Your task to perform on an android device: Add sony triple a to the cart on amazon.com Image 0: 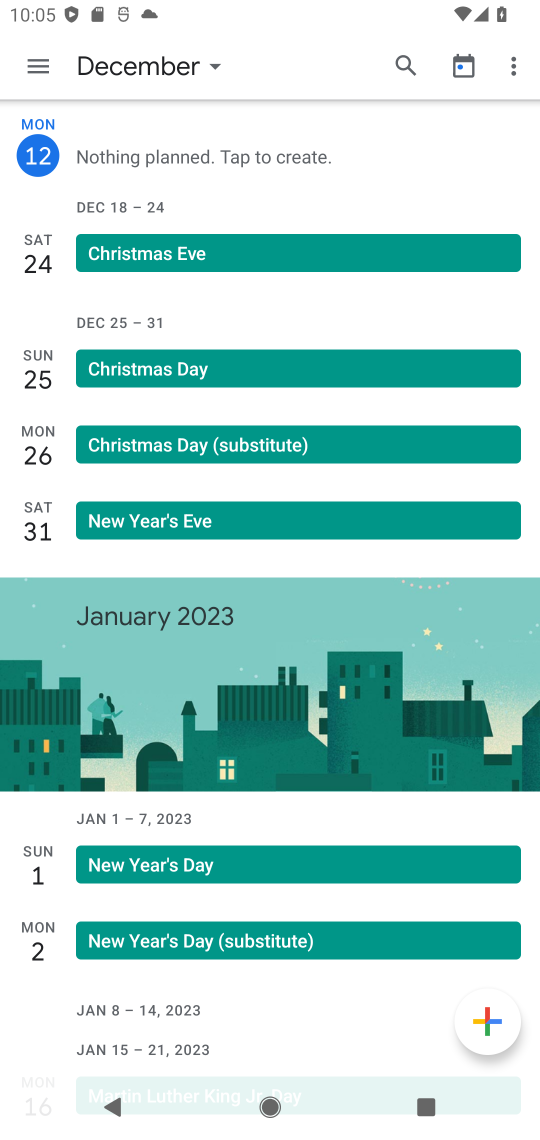
Step 0: press home button
Your task to perform on an android device: Add sony triple a to the cart on amazon.com Image 1: 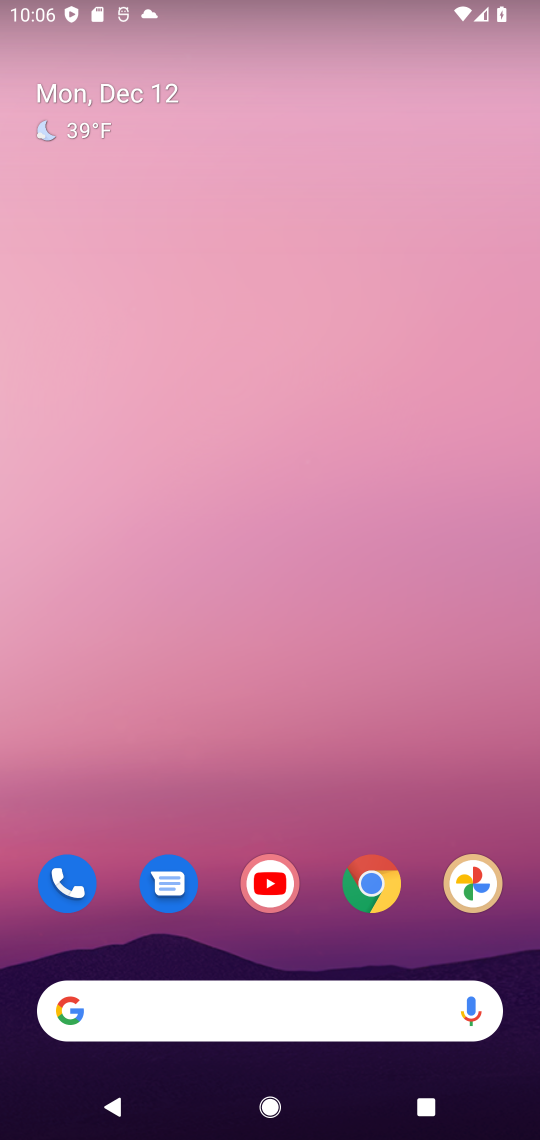
Step 1: click (163, 1032)
Your task to perform on an android device: Add sony triple a to the cart on amazon.com Image 2: 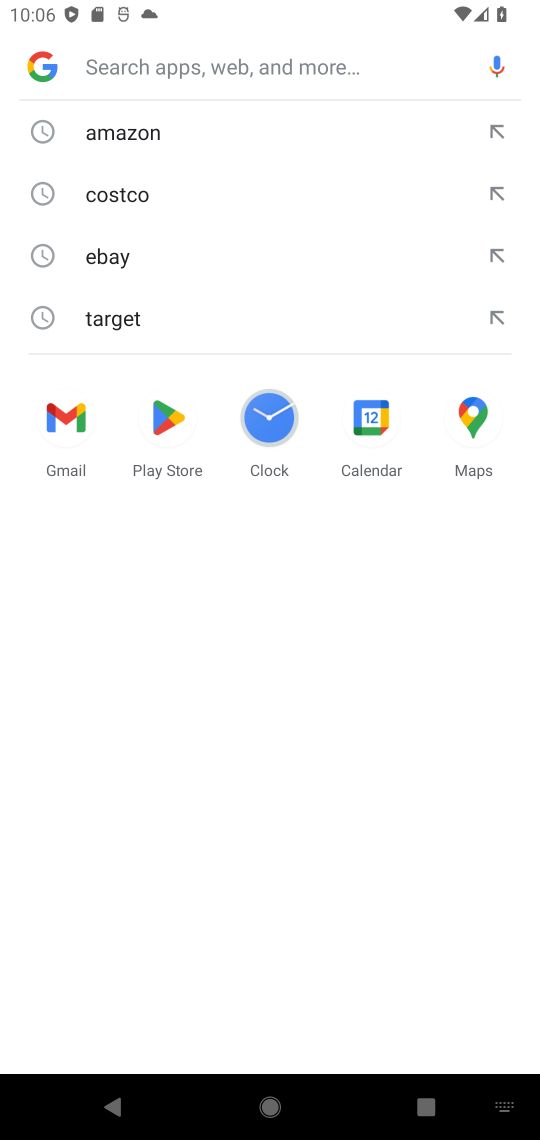
Step 2: click (97, 138)
Your task to perform on an android device: Add sony triple a to the cart on amazon.com Image 3: 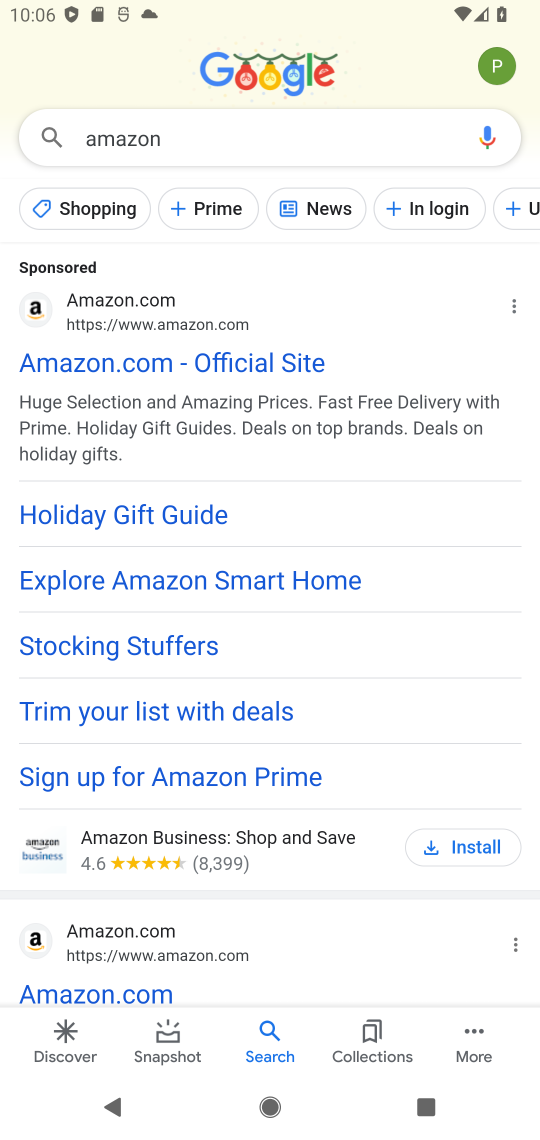
Step 3: click (102, 364)
Your task to perform on an android device: Add sony triple a to the cart on amazon.com Image 4: 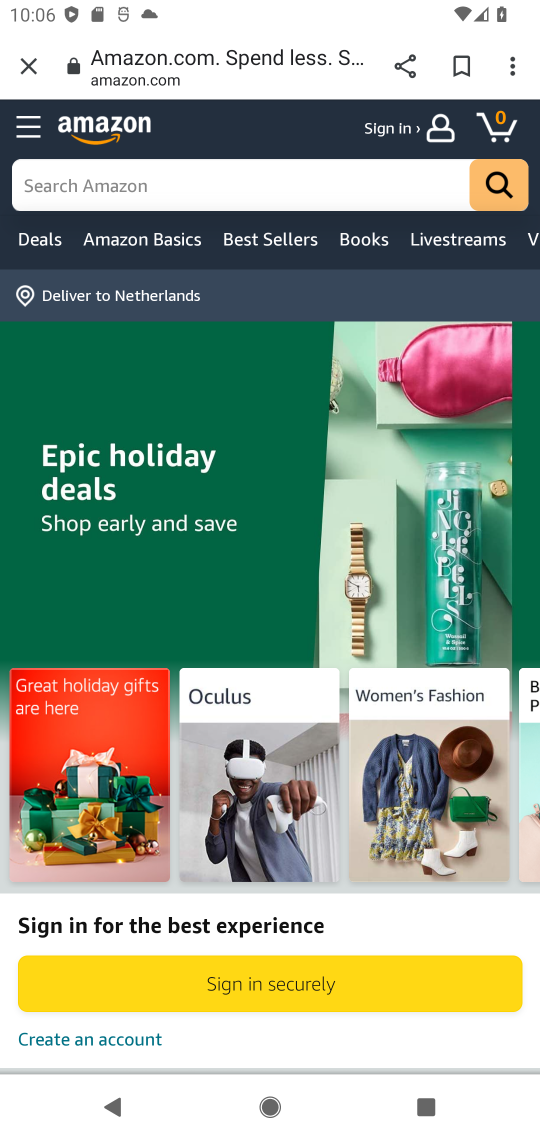
Step 4: click (190, 172)
Your task to perform on an android device: Add sony triple a to the cart on amazon.com Image 5: 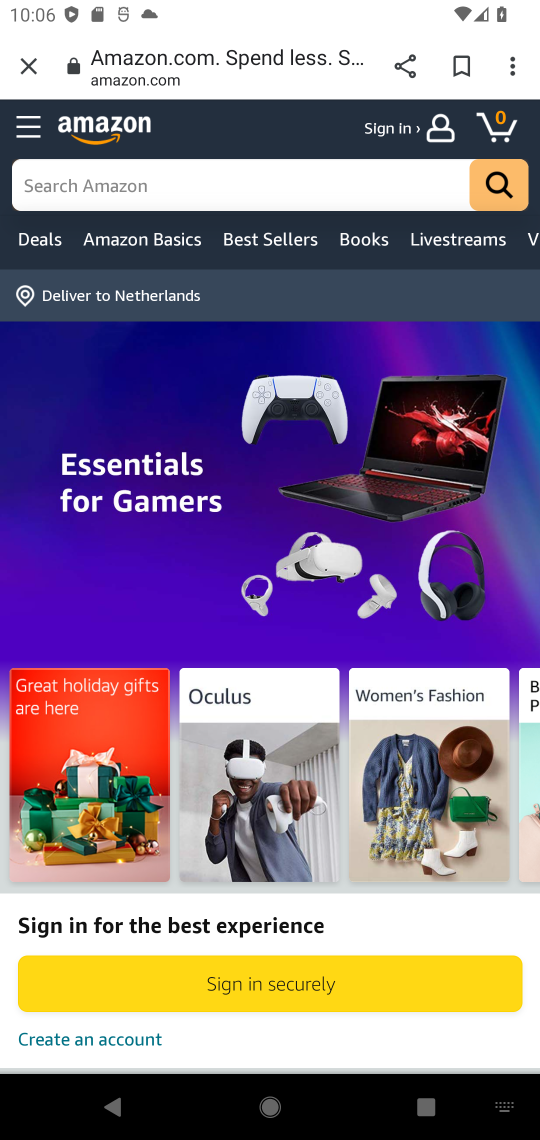
Step 5: type "sony triple a"
Your task to perform on an android device: Add sony triple a to the cart on amazon.com Image 6: 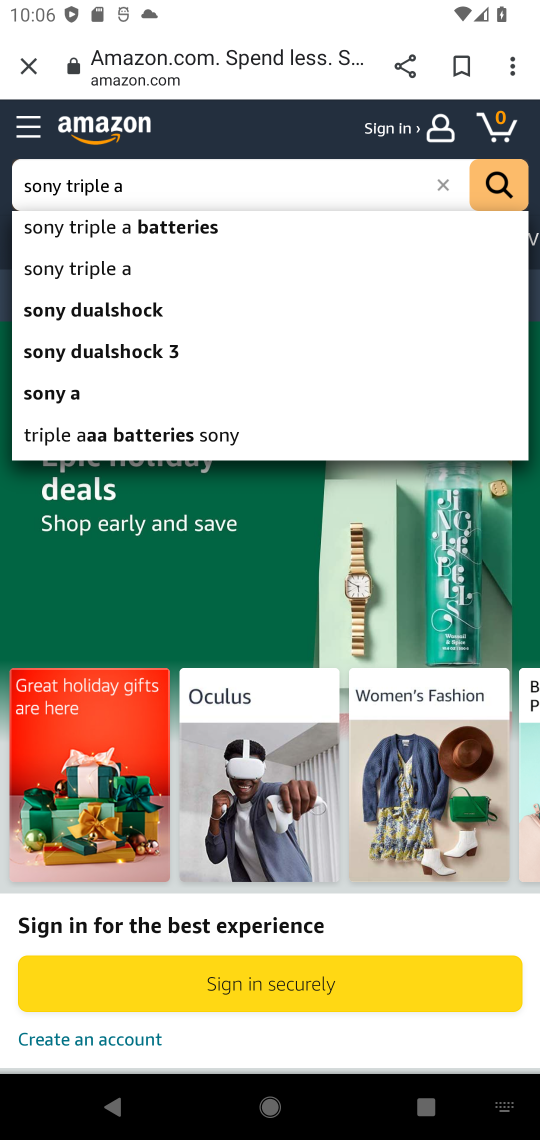
Step 6: click (124, 271)
Your task to perform on an android device: Add sony triple a to the cart on amazon.com Image 7: 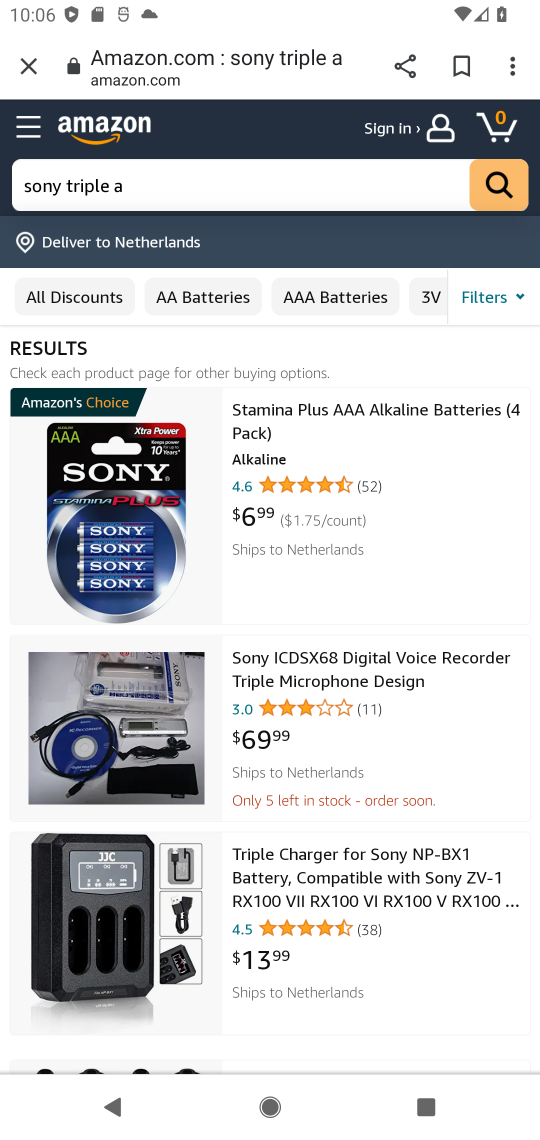
Step 7: click (279, 440)
Your task to perform on an android device: Add sony triple a to the cart on amazon.com Image 8: 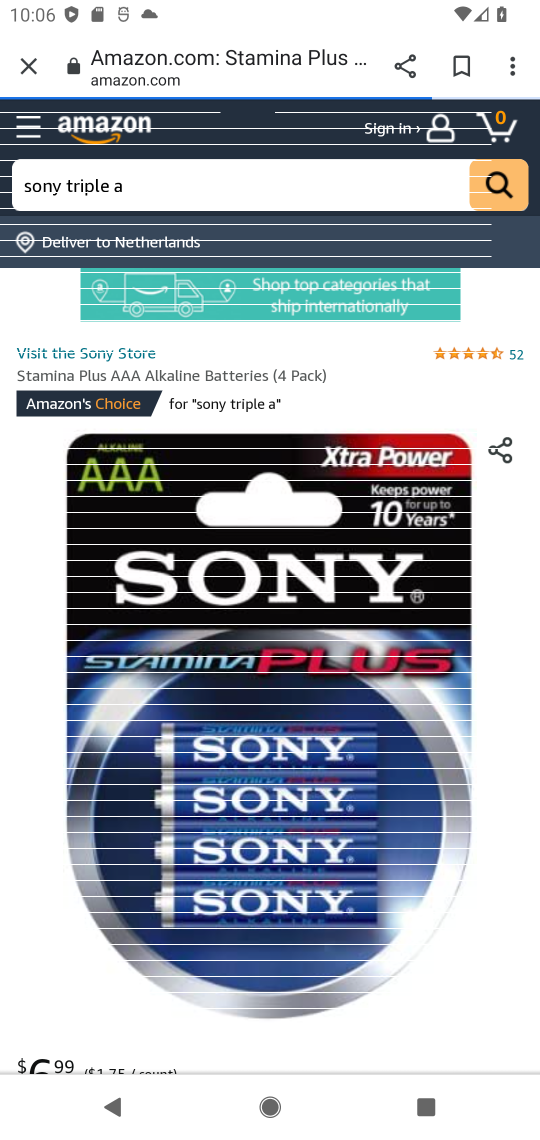
Step 8: drag from (118, 730) to (189, 421)
Your task to perform on an android device: Add sony triple a to the cart on amazon.com Image 9: 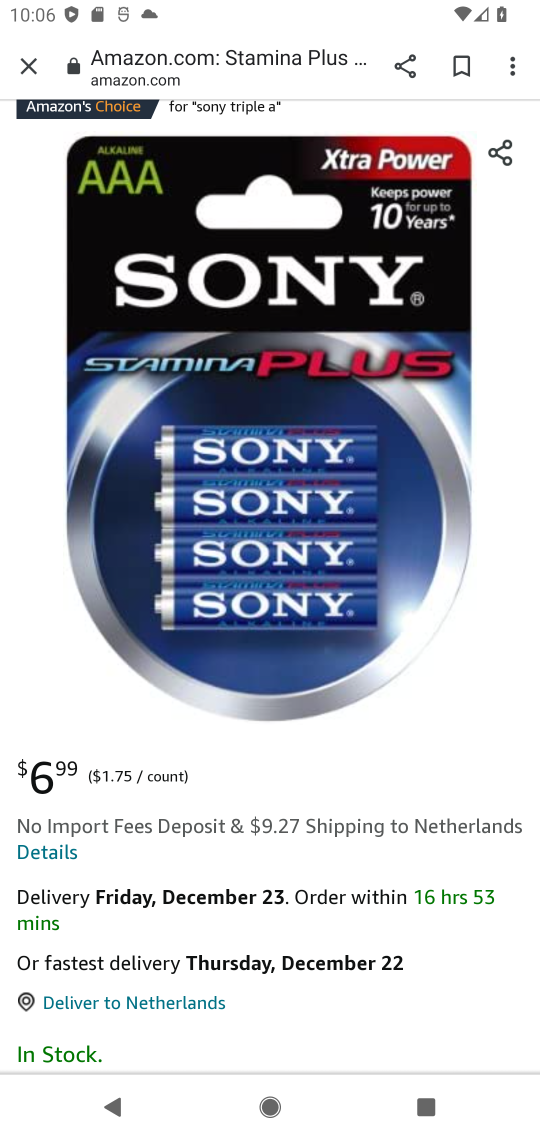
Step 9: drag from (174, 695) to (252, 285)
Your task to perform on an android device: Add sony triple a to the cart on amazon.com Image 10: 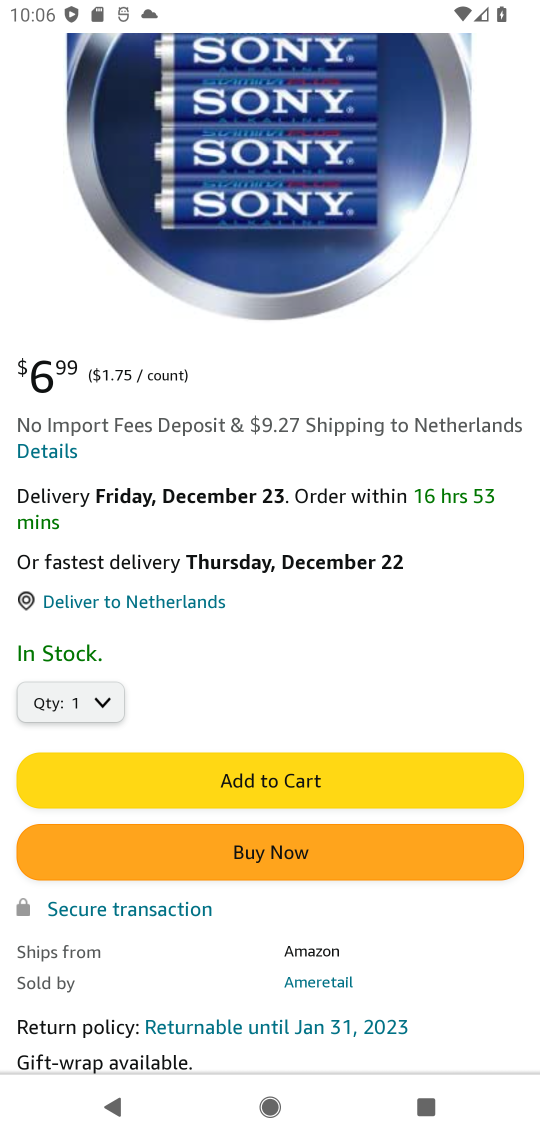
Step 10: click (263, 771)
Your task to perform on an android device: Add sony triple a to the cart on amazon.com Image 11: 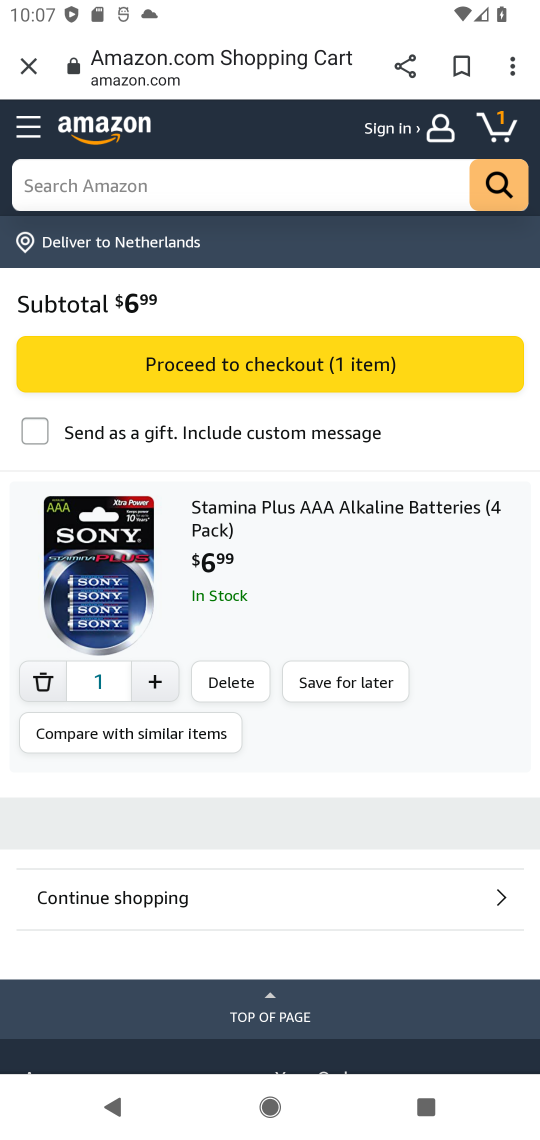
Step 11: click (242, 359)
Your task to perform on an android device: Add sony triple a to the cart on amazon.com Image 12: 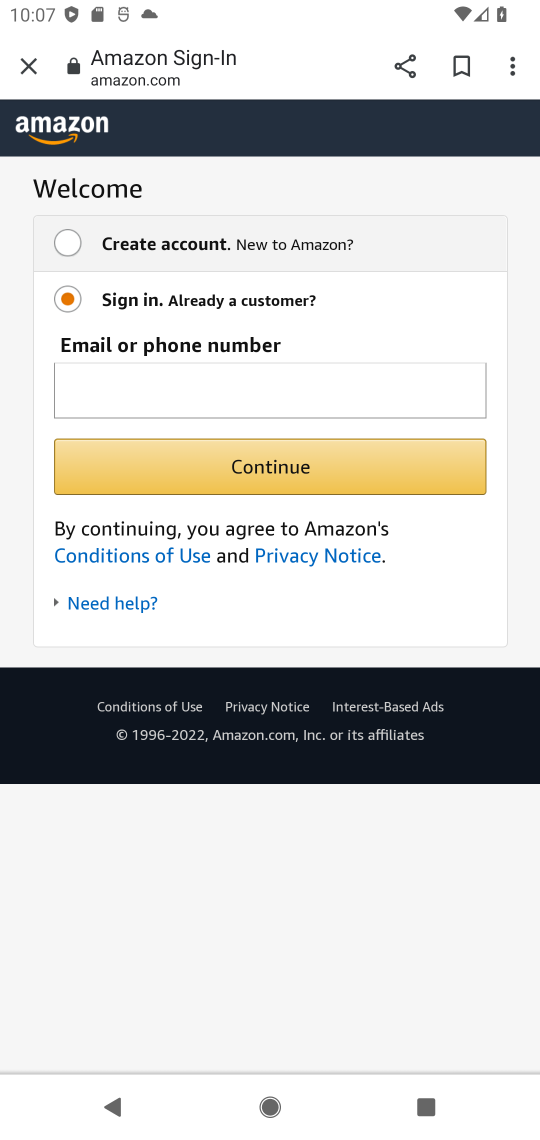
Step 12: task complete